Your task to perform on an android device: toggle improve location accuracy Image 0: 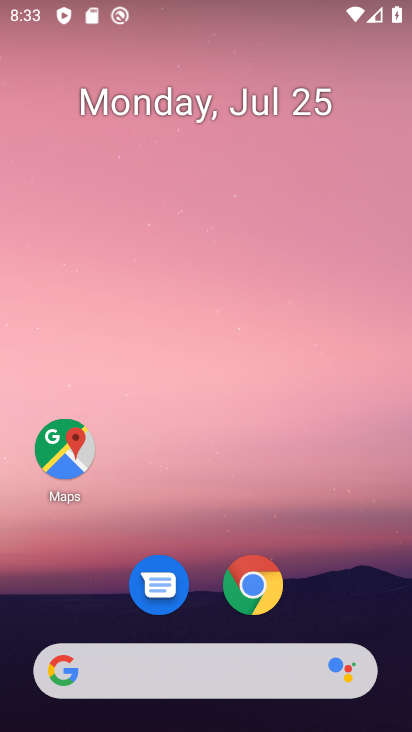
Step 0: press home button
Your task to perform on an android device: toggle improve location accuracy Image 1: 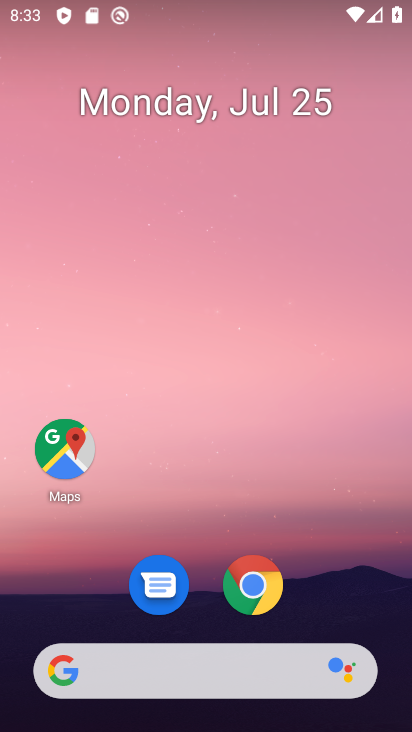
Step 1: drag from (161, 669) to (351, 70)
Your task to perform on an android device: toggle improve location accuracy Image 2: 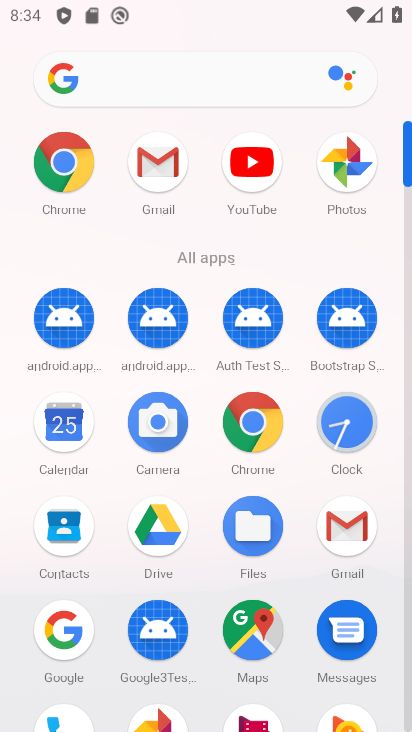
Step 2: drag from (194, 624) to (397, 165)
Your task to perform on an android device: toggle improve location accuracy Image 3: 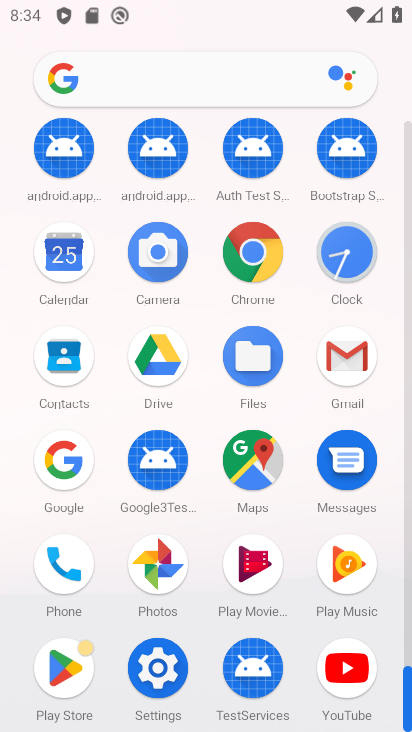
Step 3: click (148, 664)
Your task to perform on an android device: toggle improve location accuracy Image 4: 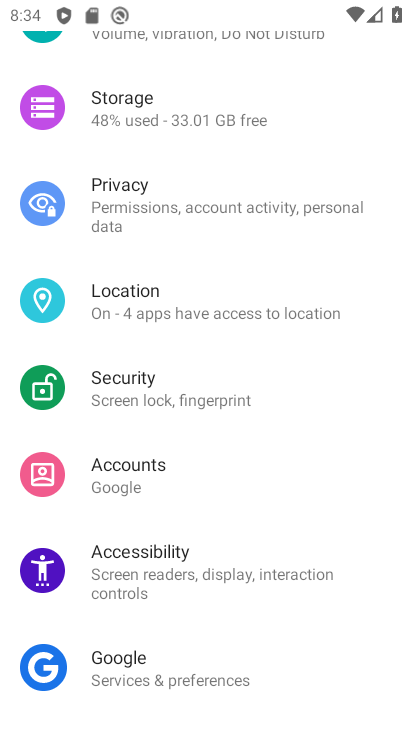
Step 4: click (182, 308)
Your task to perform on an android device: toggle improve location accuracy Image 5: 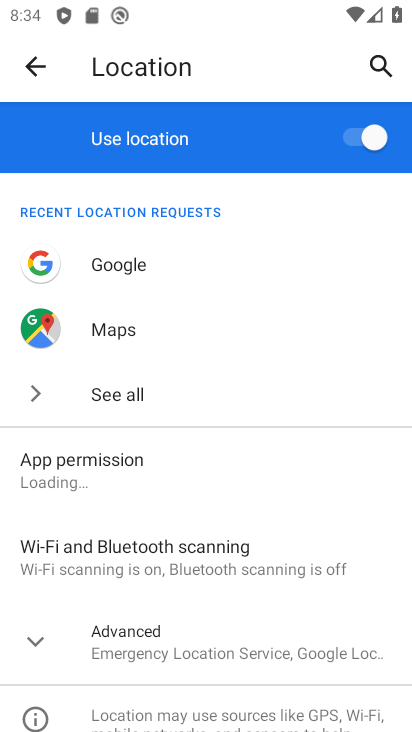
Step 5: drag from (267, 480) to (352, 181)
Your task to perform on an android device: toggle improve location accuracy Image 6: 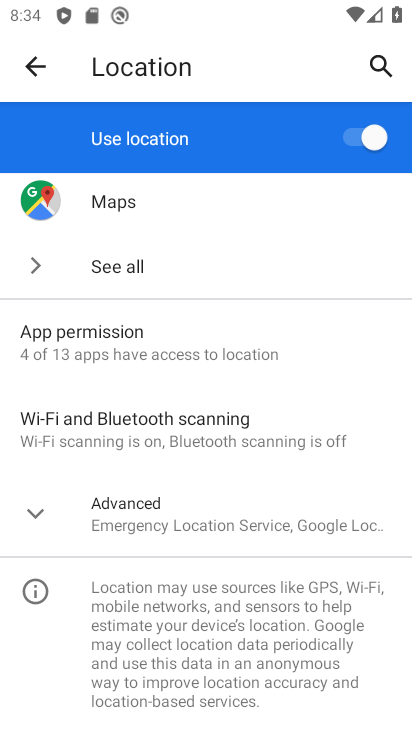
Step 6: click (153, 519)
Your task to perform on an android device: toggle improve location accuracy Image 7: 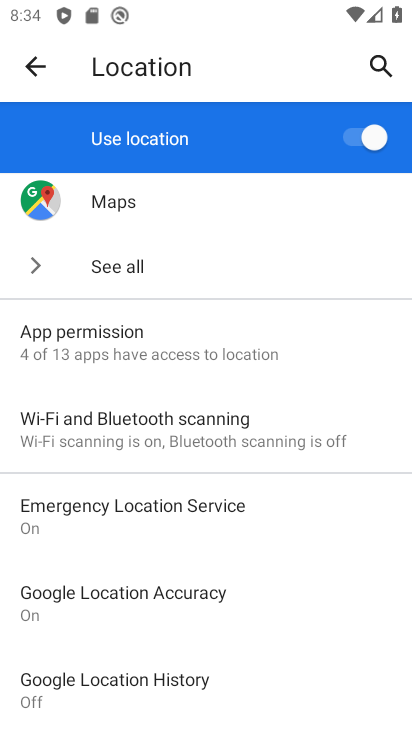
Step 7: click (143, 590)
Your task to perform on an android device: toggle improve location accuracy Image 8: 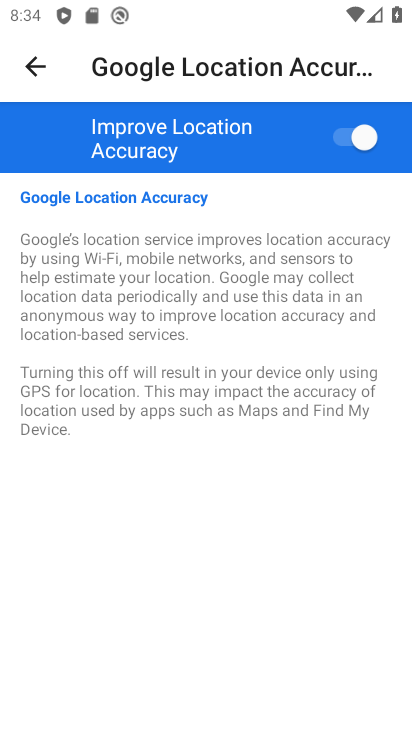
Step 8: click (344, 140)
Your task to perform on an android device: toggle improve location accuracy Image 9: 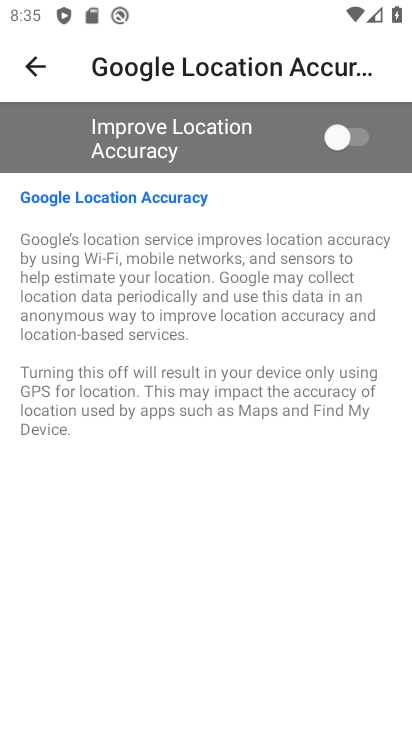
Step 9: task complete